Your task to perform on an android device: refresh tabs in the chrome app Image 0: 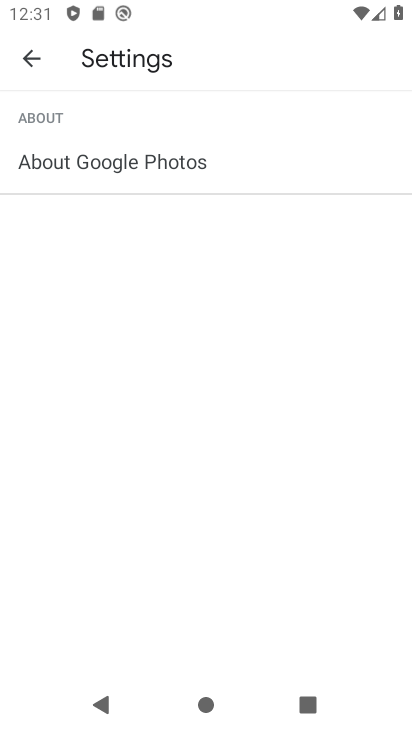
Step 0: press home button
Your task to perform on an android device: refresh tabs in the chrome app Image 1: 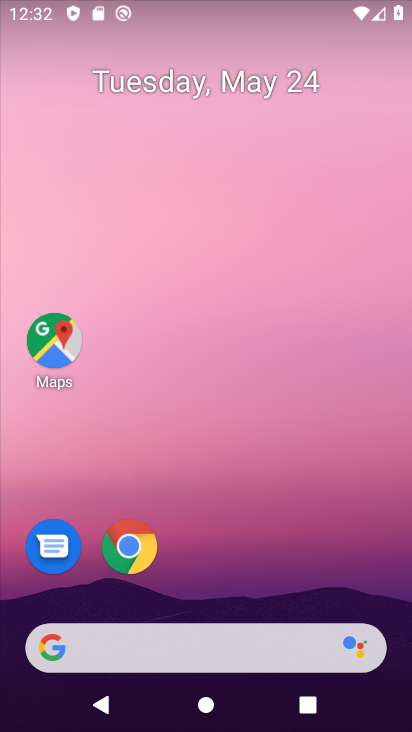
Step 1: click (132, 544)
Your task to perform on an android device: refresh tabs in the chrome app Image 2: 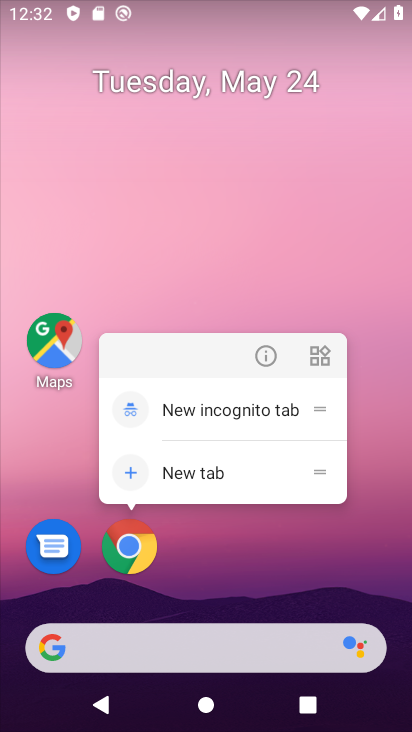
Step 2: click (141, 550)
Your task to perform on an android device: refresh tabs in the chrome app Image 3: 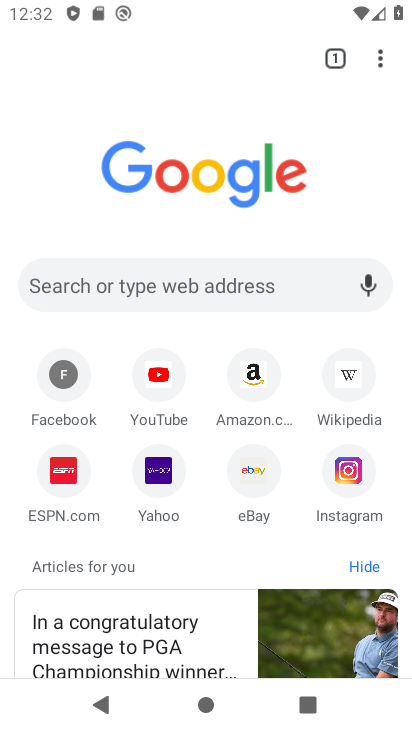
Step 3: click (376, 59)
Your task to perform on an android device: refresh tabs in the chrome app Image 4: 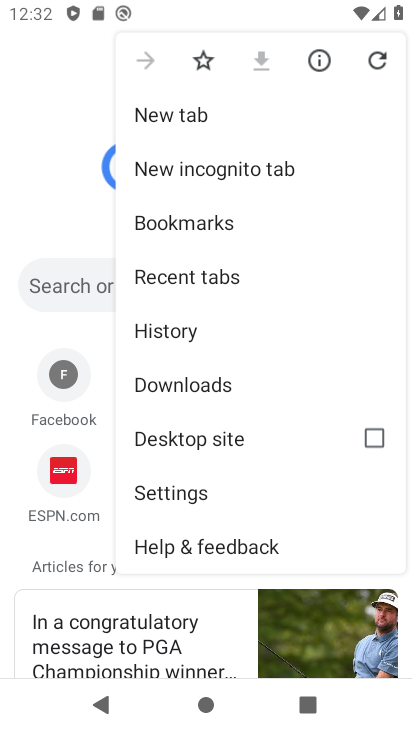
Step 4: click (371, 58)
Your task to perform on an android device: refresh tabs in the chrome app Image 5: 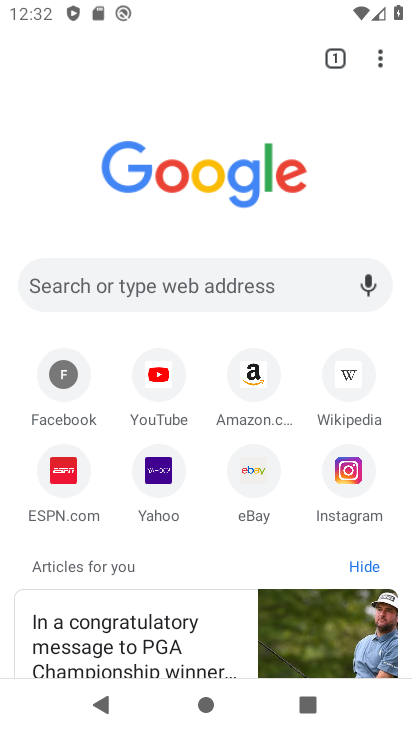
Step 5: task complete